Your task to perform on an android device: turn off notifications settings in the gmail app Image 0: 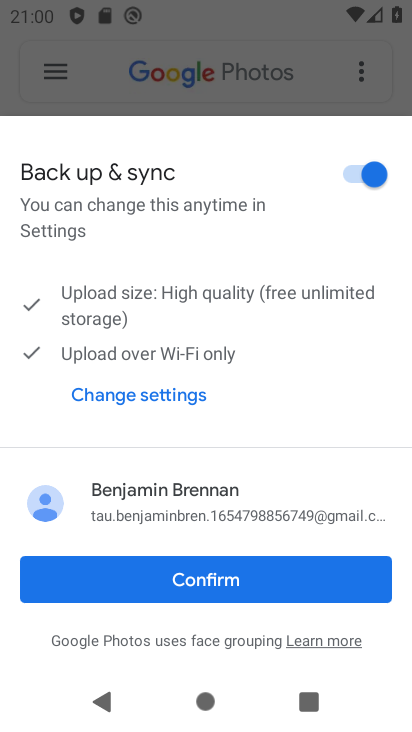
Step 0: press home button
Your task to perform on an android device: turn off notifications settings in the gmail app Image 1: 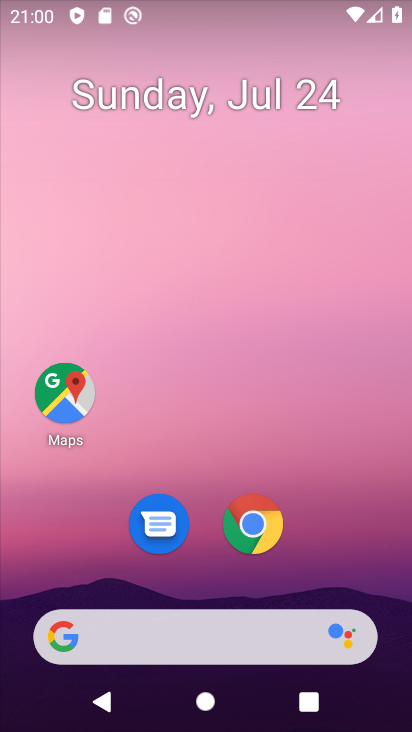
Step 1: drag from (209, 631) to (323, 115)
Your task to perform on an android device: turn off notifications settings in the gmail app Image 2: 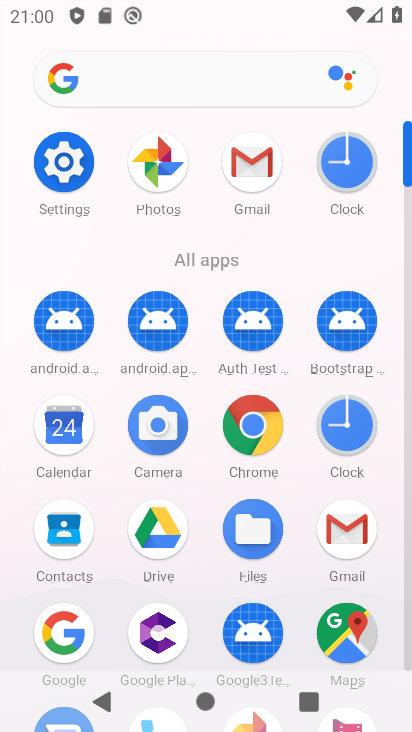
Step 2: click (247, 169)
Your task to perform on an android device: turn off notifications settings in the gmail app Image 3: 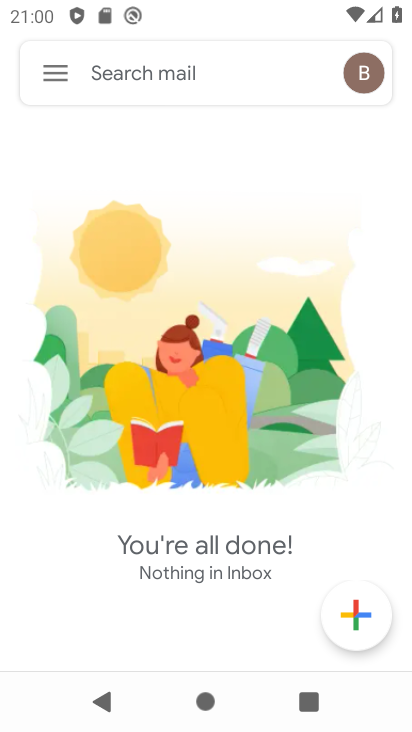
Step 3: click (50, 73)
Your task to perform on an android device: turn off notifications settings in the gmail app Image 4: 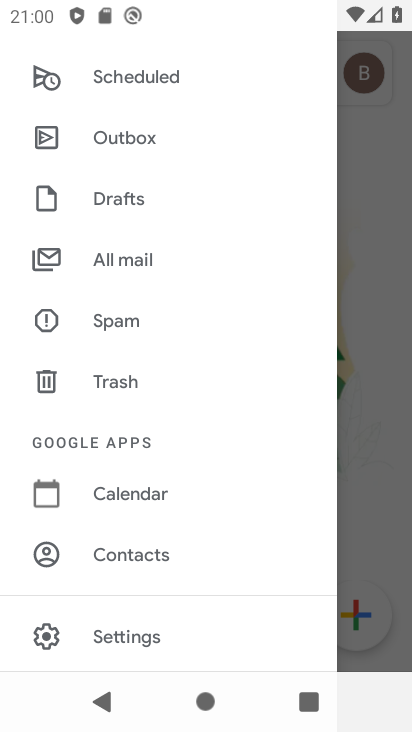
Step 4: click (135, 637)
Your task to perform on an android device: turn off notifications settings in the gmail app Image 5: 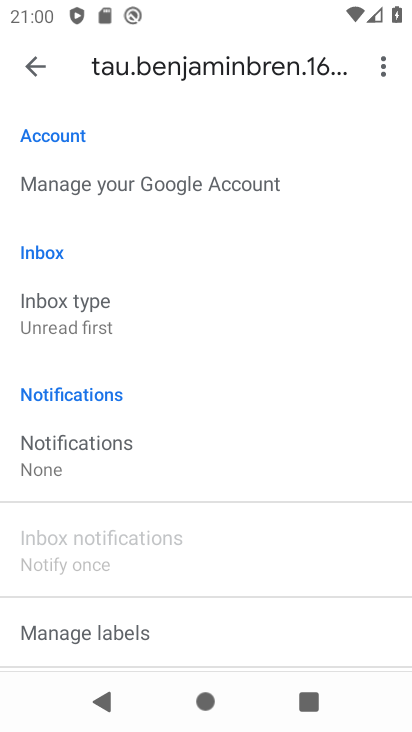
Step 5: click (74, 466)
Your task to perform on an android device: turn off notifications settings in the gmail app Image 6: 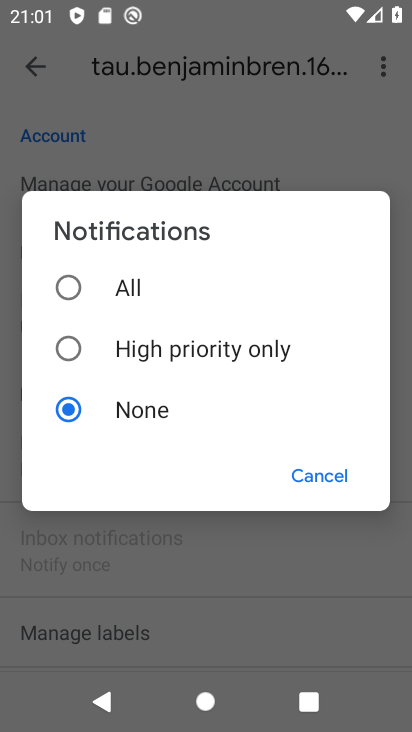
Step 6: task complete